Your task to perform on an android device: change the clock display to digital Image 0: 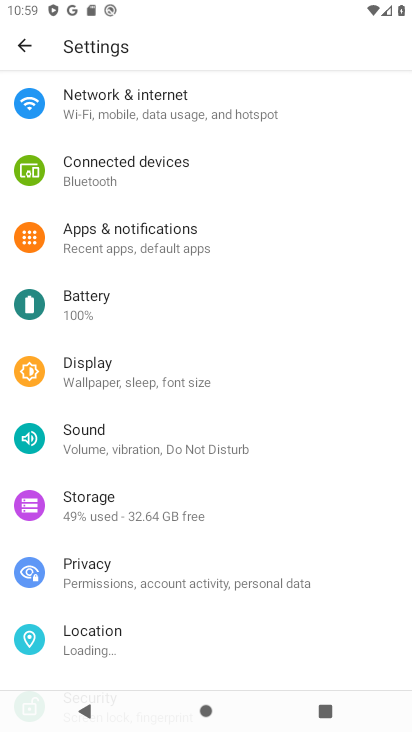
Step 0: press home button
Your task to perform on an android device: change the clock display to digital Image 1: 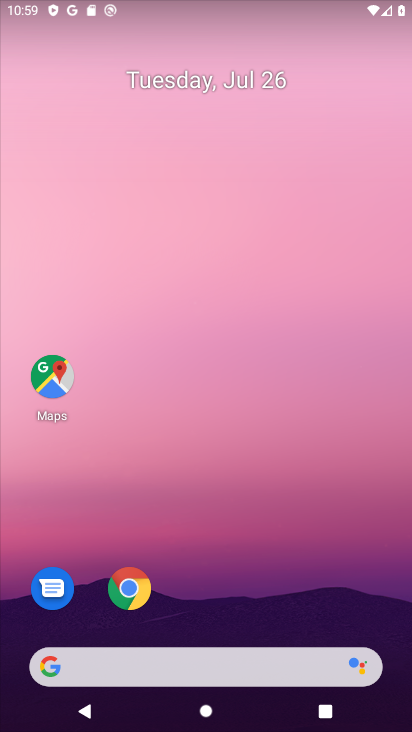
Step 1: drag from (222, 622) to (232, 9)
Your task to perform on an android device: change the clock display to digital Image 2: 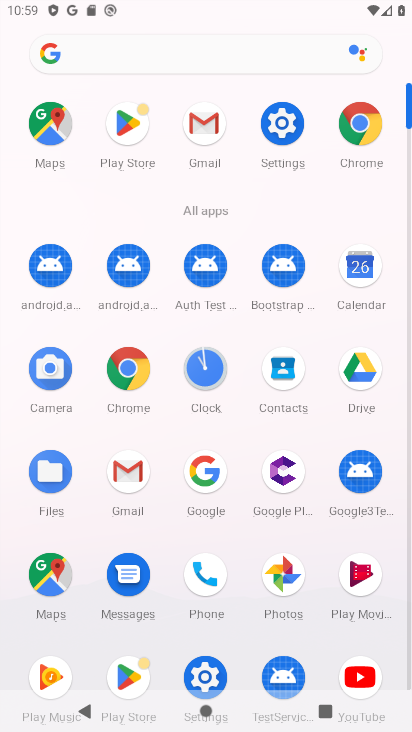
Step 2: click (202, 361)
Your task to perform on an android device: change the clock display to digital Image 3: 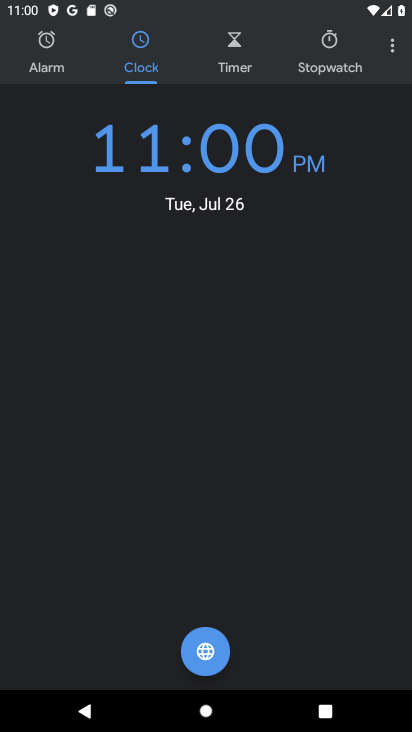
Step 3: click (395, 48)
Your task to perform on an android device: change the clock display to digital Image 4: 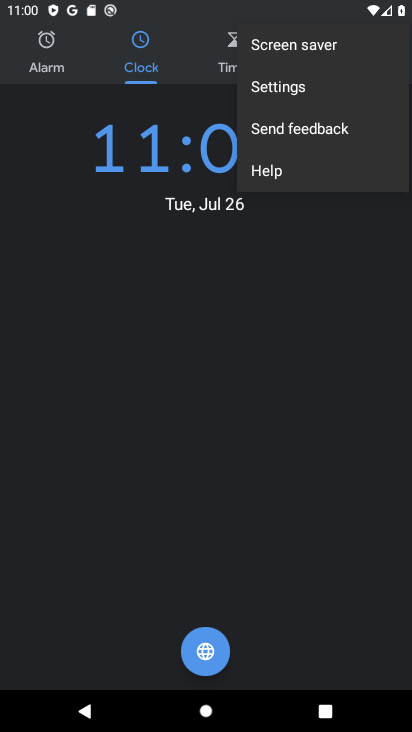
Step 4: click (315, 83)
Your task to perform on an android device: change the clock display to digital Image 5: 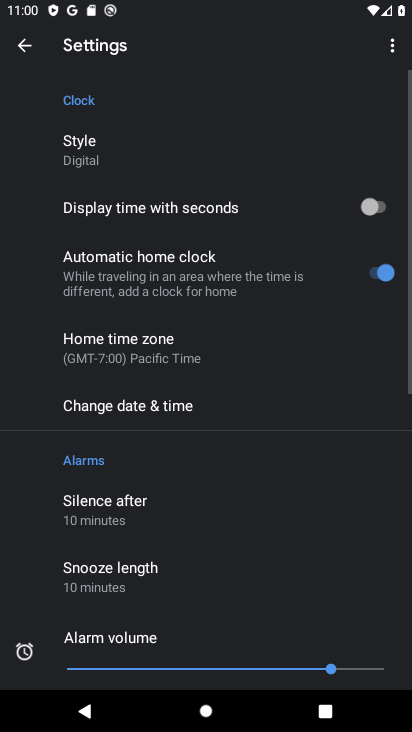
Step 5: click (131, 150)
Your task to perform on an android device: change the clock display to digital Image 6: 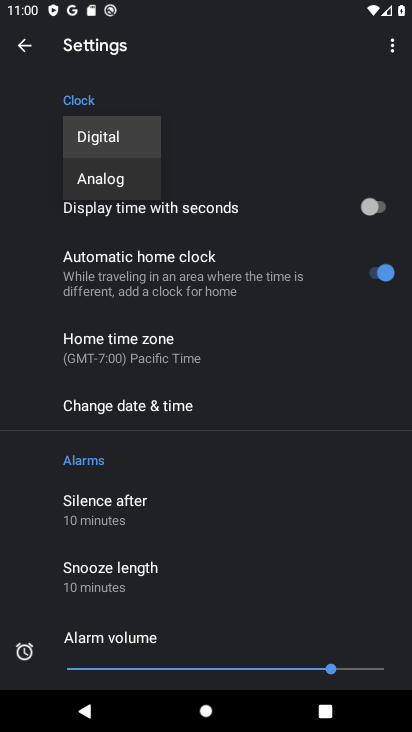
Step 6: click (130, 174)
Your task to perform on an android device: change the clock display to digital Image 7: 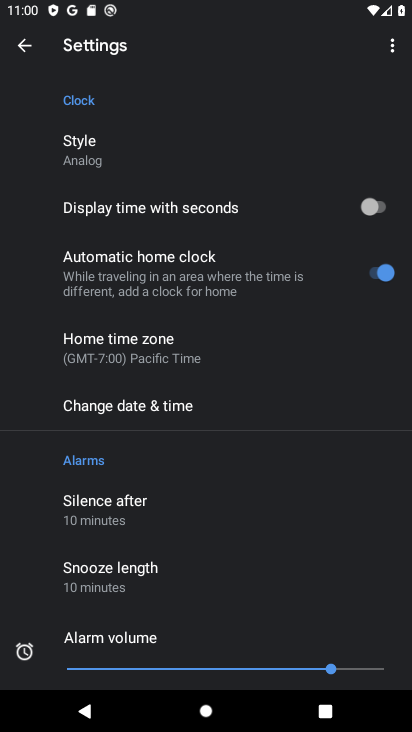
Step 7: click (115, 146)
Your task to perform on an android device: change the clock display to digital Image 8: 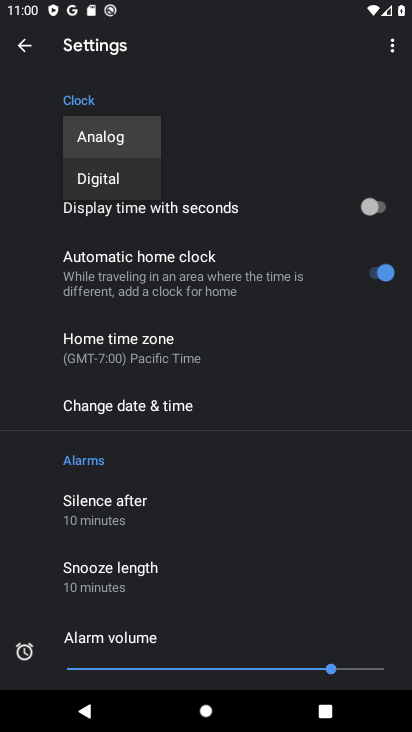
Step 8: click (122, 171)
Your task to perform on an android device: change the clock display to digital Image 9: 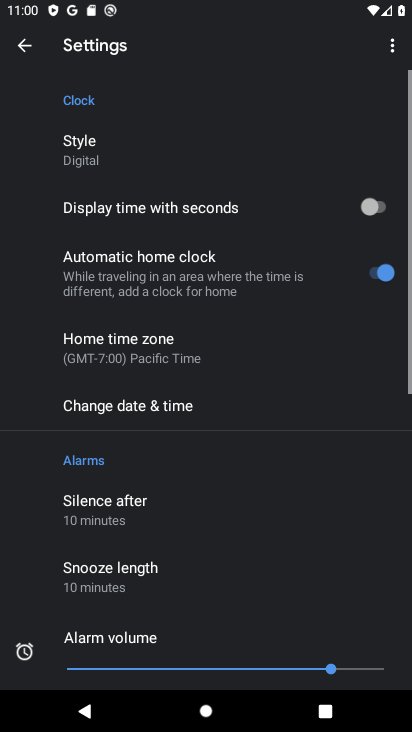
Step 9: task complete